Your task to perform on an android device: see sites visited before in the chrome app Image 0: 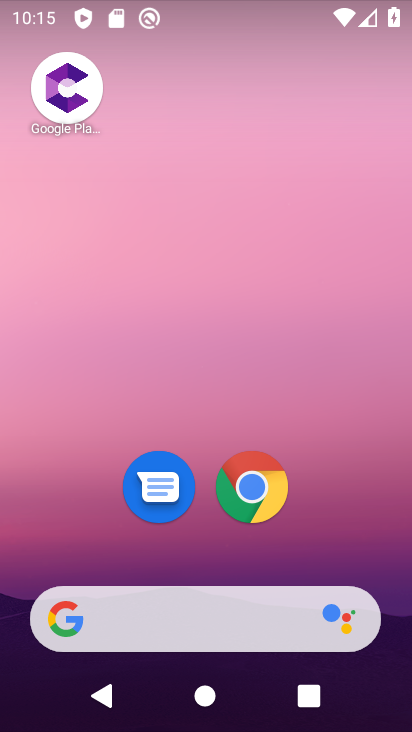
Step 0: drag from (346, 570) to (327, 10)
Your task to perform on an android device: see sites visited before in the chrome app Image 1: 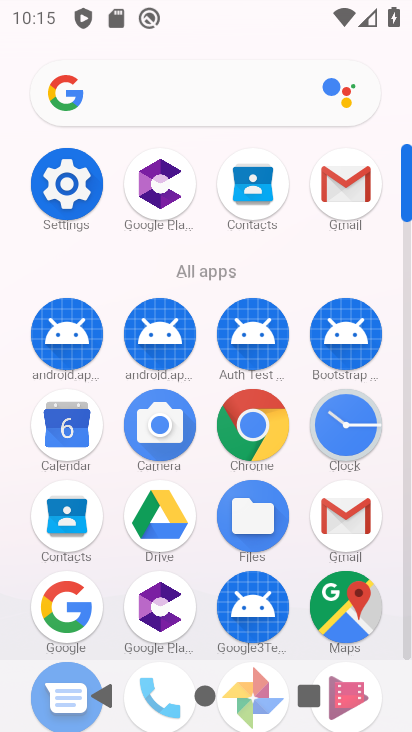
Step 1: click (261, 427)
Your task to perform on an android device: see sites visited before in the chrome app Image 2: 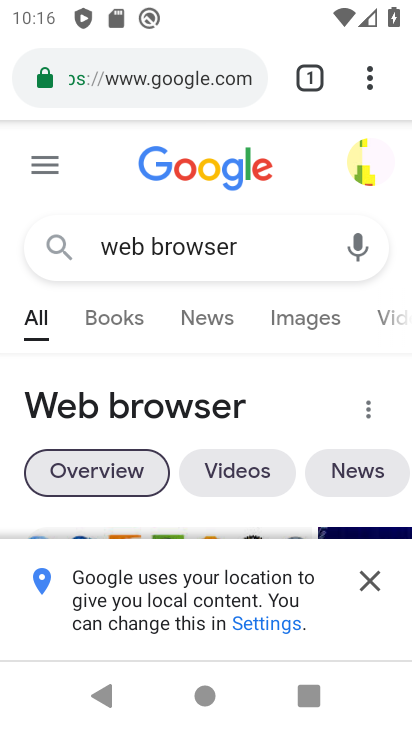
Step 2: task complete